Your task to perform on an android device: Check out the top rated books on Goodreads. Image 0: 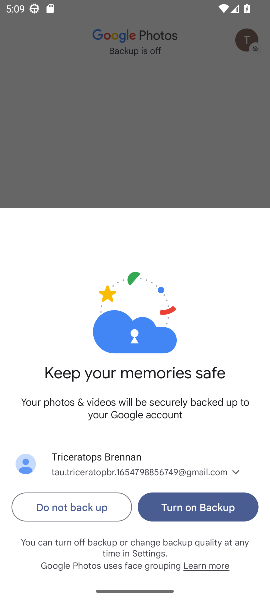
Step 0: press home button
Your task to perform on an android device: Check out the top rated books on Goodreads. Image 1: 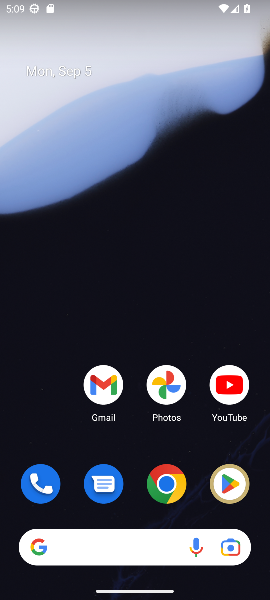
Step 1: click (170, 488)
Your task to perform on an android device: Check out the top rated books on Goodreads. Image 2: 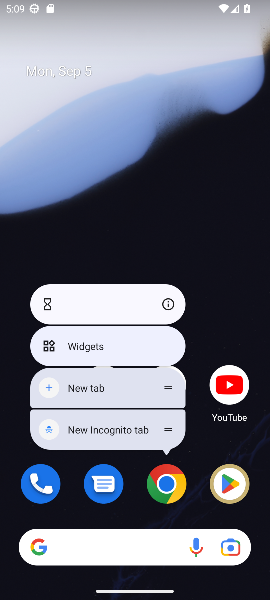
Step 2: click (169, 489)
Your task to perform on an android device: Check out the top rated books on Goodreads. Image 3: 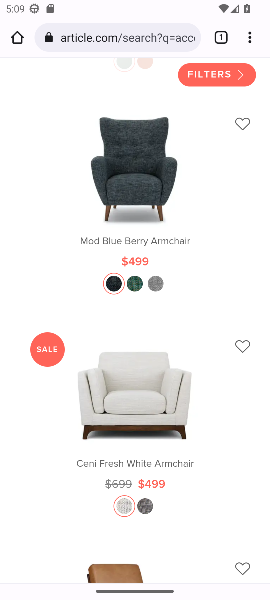
Step 3: click (150, 32)
Your task to perform on an android device: Check out the top rated books on Goodreads. Image 4: 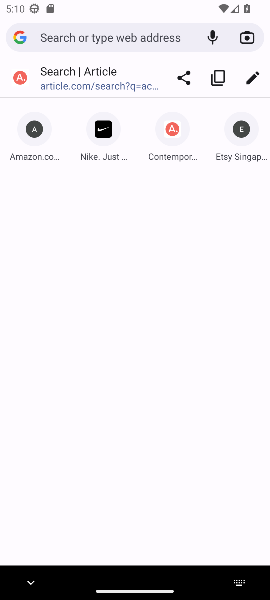
Step 4: type "Goodreads"
Your task to perform on an android device: Check out the top rated books on Goodreads. Image 5: 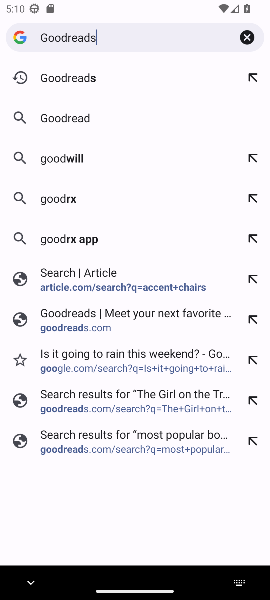
Step 5: press enter
Your task to perform on an android device: Check out the top rated books on Goodreads. Image 6: 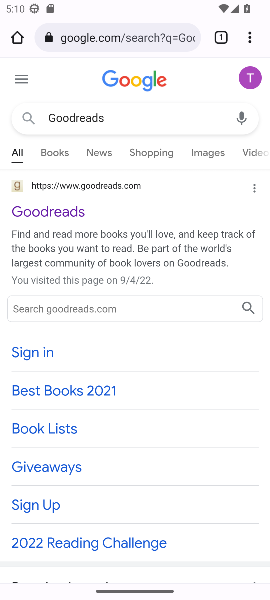
Step 6: click (36, 210)
Your task to perform on an android device: Check out the top rated books on Goodreads. Image 7: 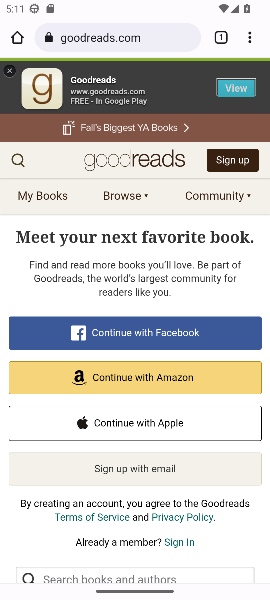
Step 7: click (18, 163)
Your task to perform on an android device: Check out the top rated books on Goodreads. Image 8: 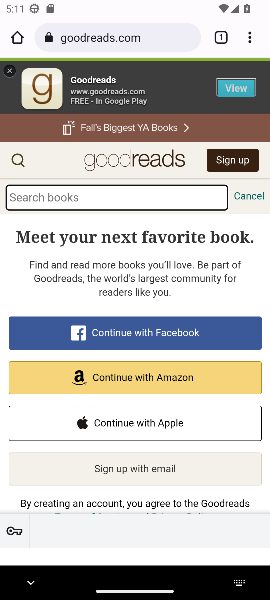
Step 8: type "top rated books"
Your task to perform on an android device: Check out the top rated books on Goodreads. Image 9: 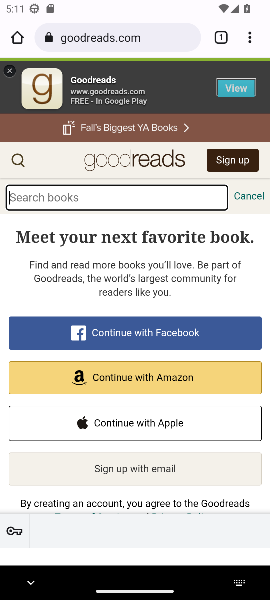
Step 9: press enter
Your task to perform on an android device: Check out the top rated books on Goodreads. Image 10: 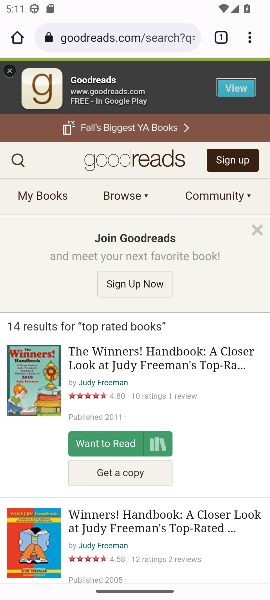
Step 10: task complete